Your task to perform on an android device: turn on location history Image 0: 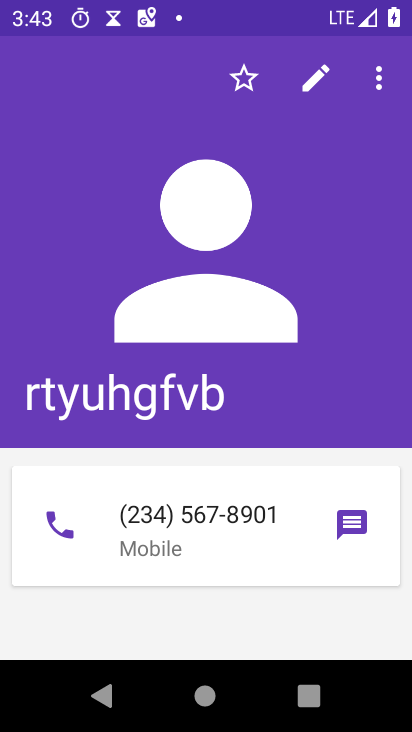
Step 0: press home button
Your task to perform on an android device: turn on location history Image 1: 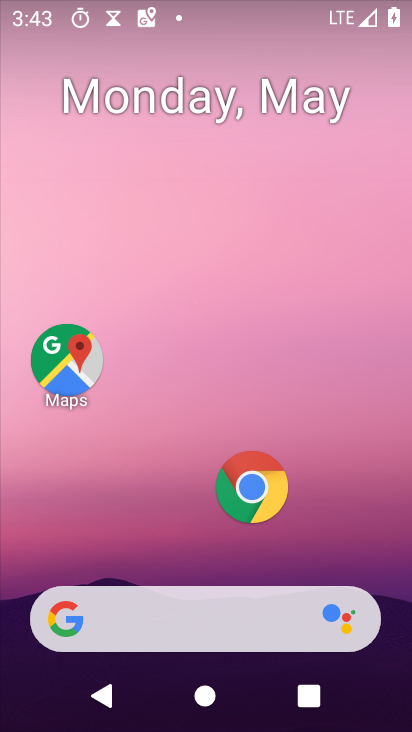
Step 1: drag from (144, 539) to (178, 68)
Your task to perform on an android device: turn on location history Image 2: 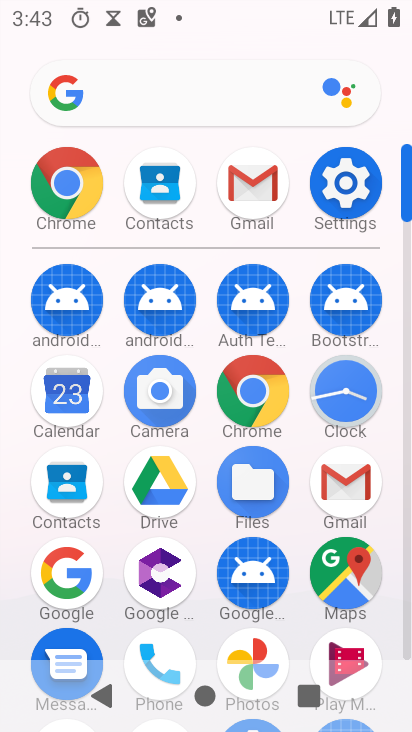
Step 2: click (351, 192)
Your task to perform on an android device: turn on location history Image 3: 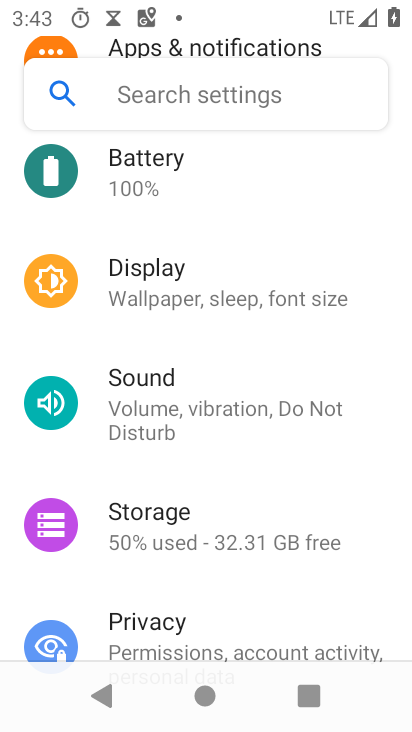
Step 3: drag from (192, 582) to (199, 282)
Your task to perform on an android device: turn on location history Image 4: 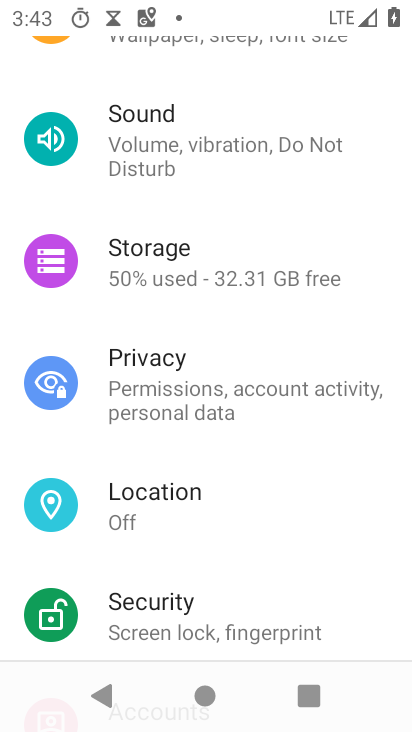
Step 4: click (187, 511)
Your task to perform on an android device: turn on location history Image 5: 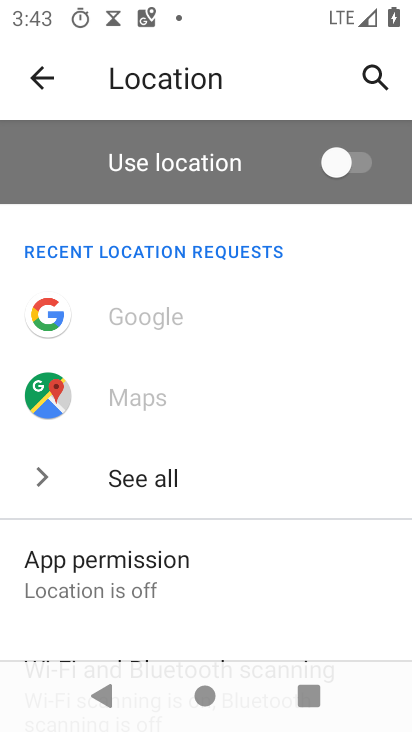
Step 5: click (348, 162)
Your task to perform on an android device: turn on location history Image 6: 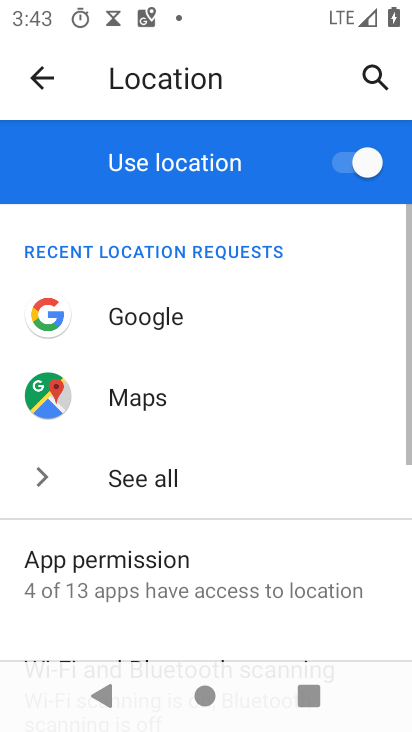
Step 6: task complete